Your task to perform on an android device: Check the price on the Dyson V11 Motorhead on Best Buy Image 0: 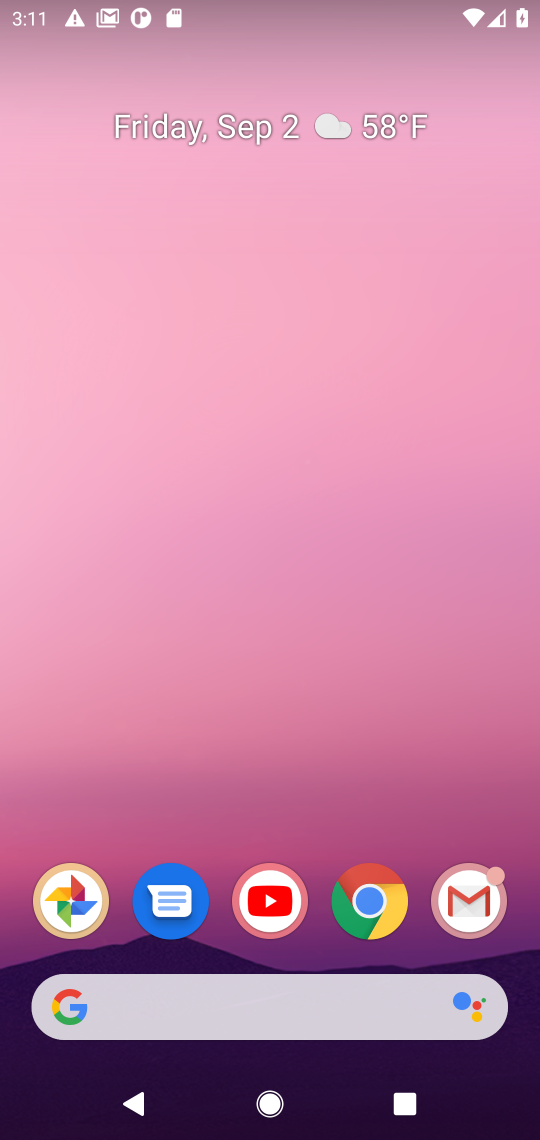
Step 0: drag from (393, 790) to (433, 20)
Your task to perform on an android device: Check the price on the Dyson V11 Motorhead on Best Buy Image 1: 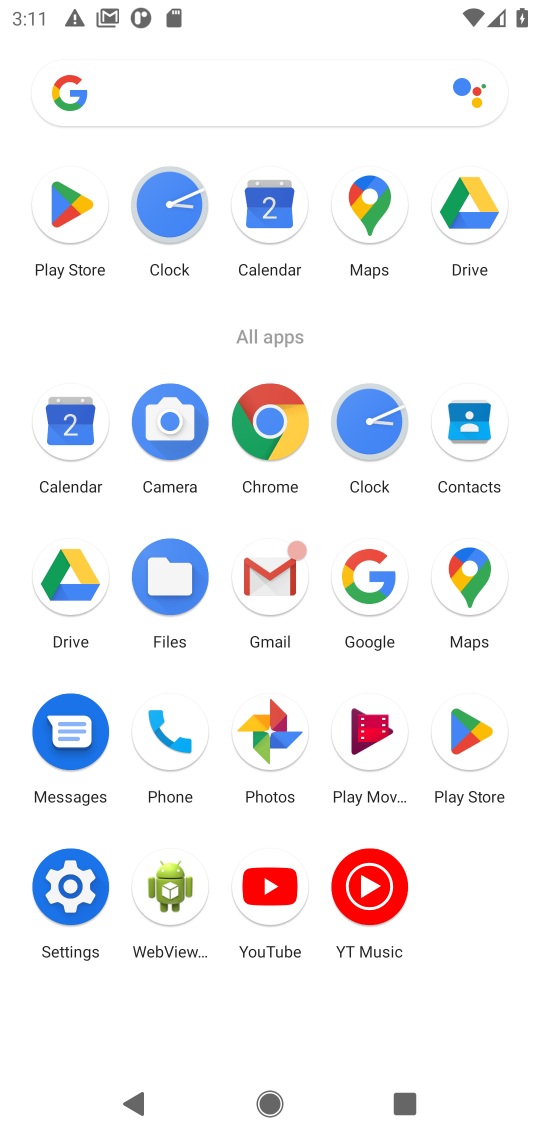
Step 1: click (276, 425)
Your task to perform on an android device: Check the price on the Dyson V11 Motorhead on Best Buy Image 2: 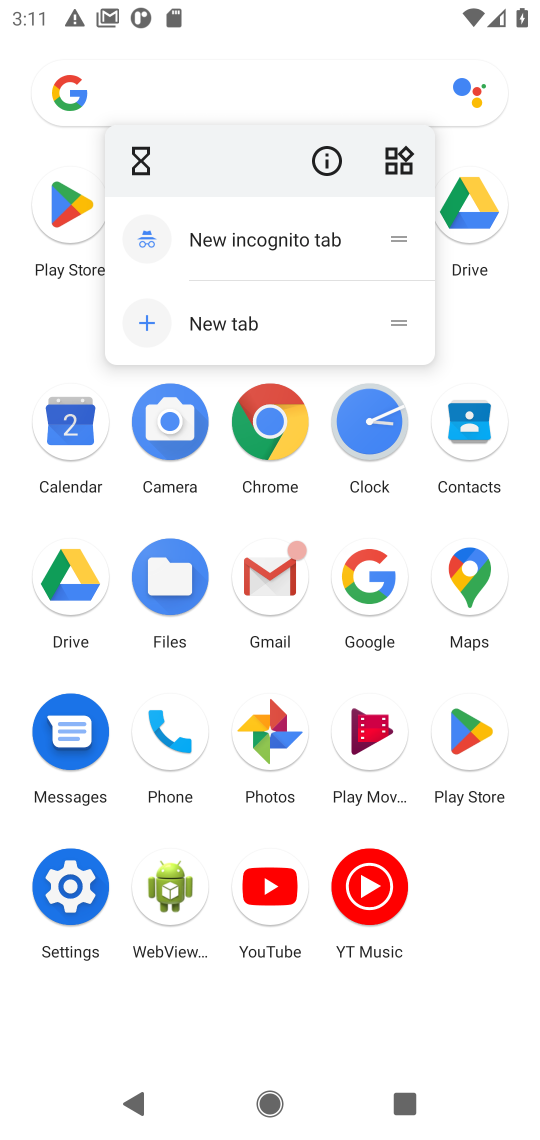
Step 2: click (276, 425)
Your task to perform on an android device: Check the price on the Dyson V11 Motorhead on Best Buy Image 3: 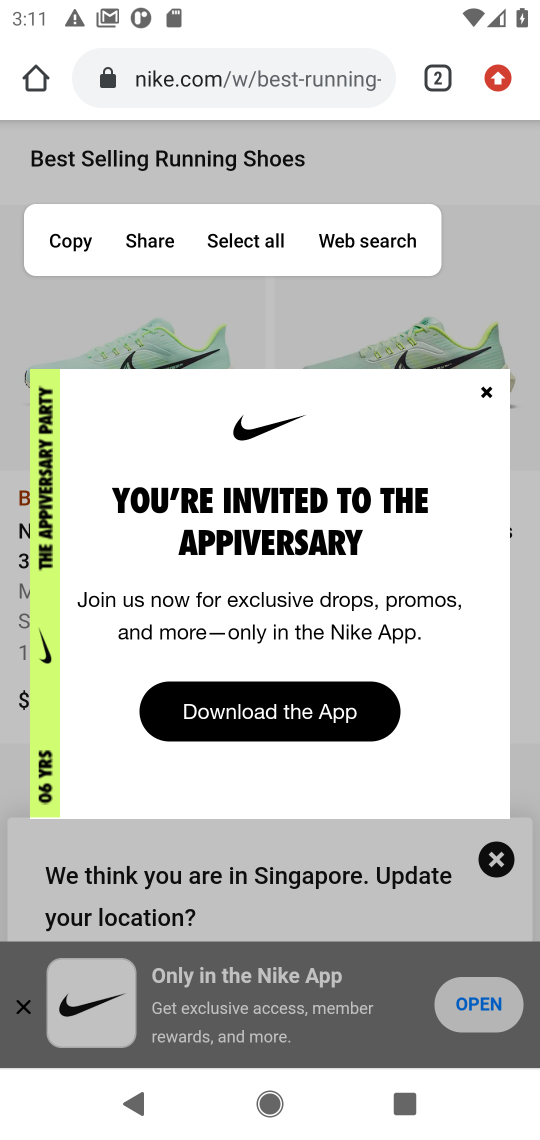
Step 3: click (298, 69)
Your task to perform on an android device: Check the price on the Dyson V11 Motorhead on Best Buy Image 4: 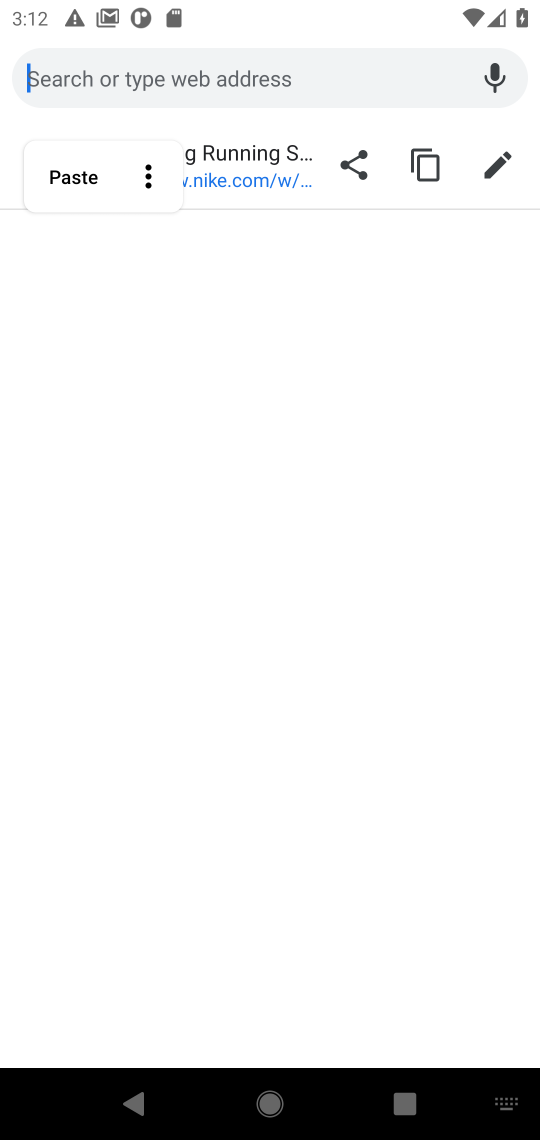
Step 4: type "Dyson V11 Motorhead best buy"
Your task to perform on an android device: Check the price on the Dyson V11 Motorhead on Best Buy Image 5: 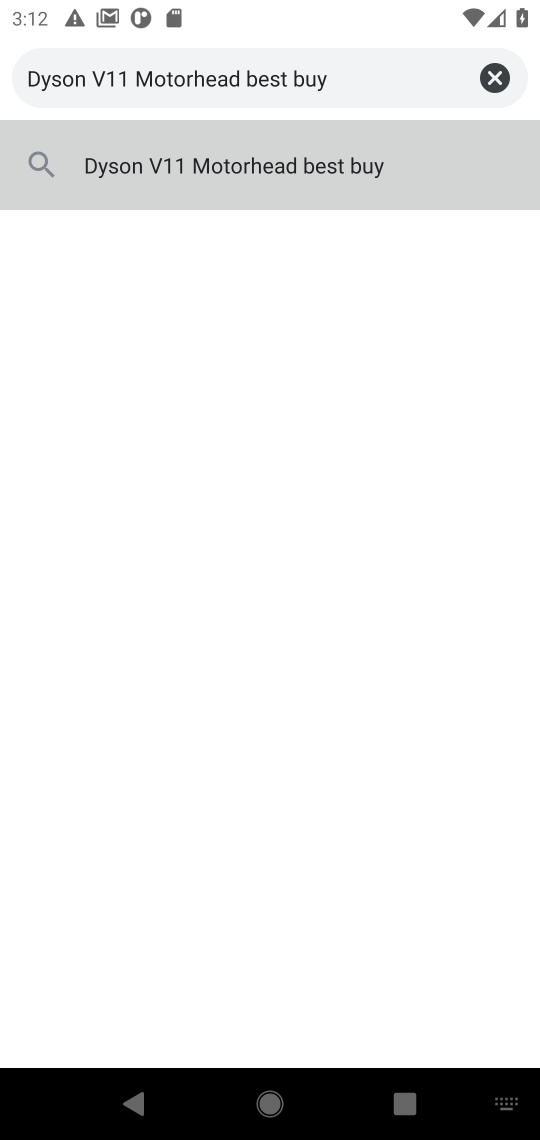
Step 5: press enter
Your task to perform on an android device: Check the price on the Dyson V11 Motorhead on Best Buy Image 6: 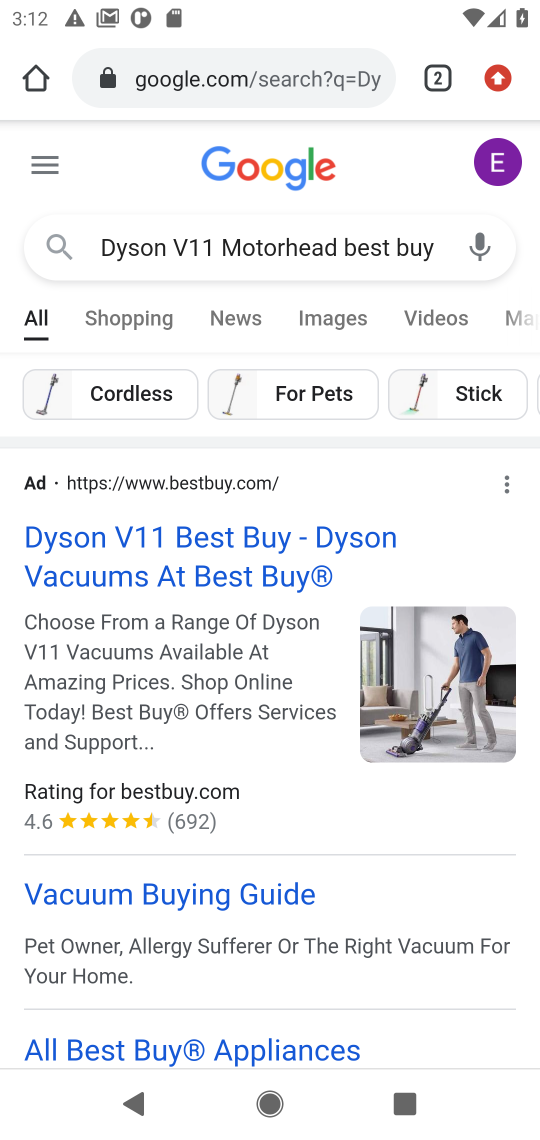
Step 6: drag from (351, 781) to (407, 53)
Your task to perform on an android device: Check the price on the Dyson V11 Motorhead on Best Buy Image 7: 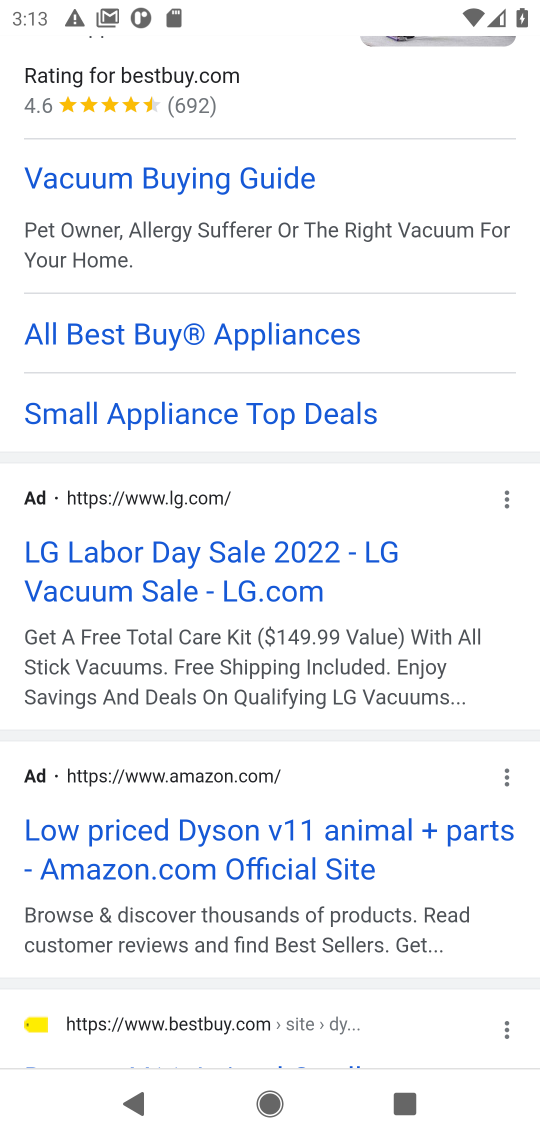
Step 7: drag from (254, 815) to (208, 395)
Your task to perform on an android device: Check the price on the Dyson V11 Motorhead on Best Buy Image 8: 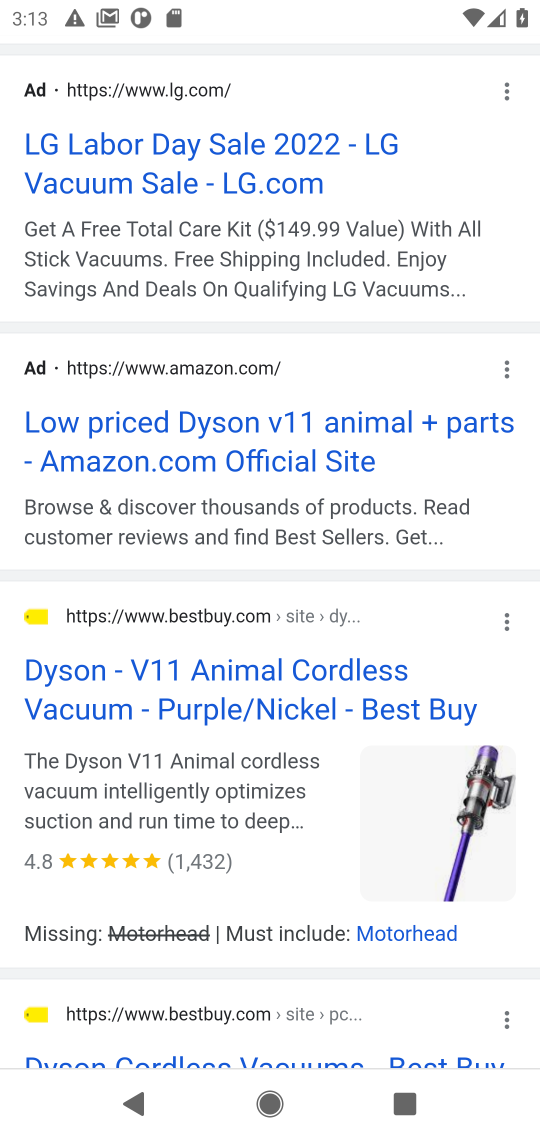
Step 8: click (359, 670)
Your task to perform on an android device: Check the price on the Dyson V11 Motorhead on Best Buy Image 9: 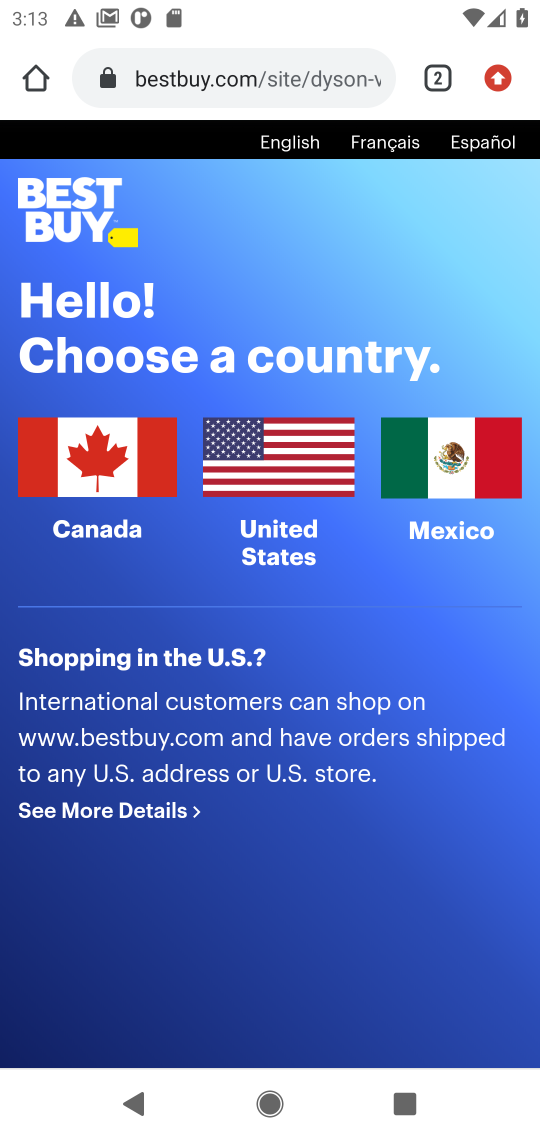
Step 9: click (258, 459)
Your task to perform on an android device: Check the price on the Dyson V11 Motorhead on Best Buy Image 10: 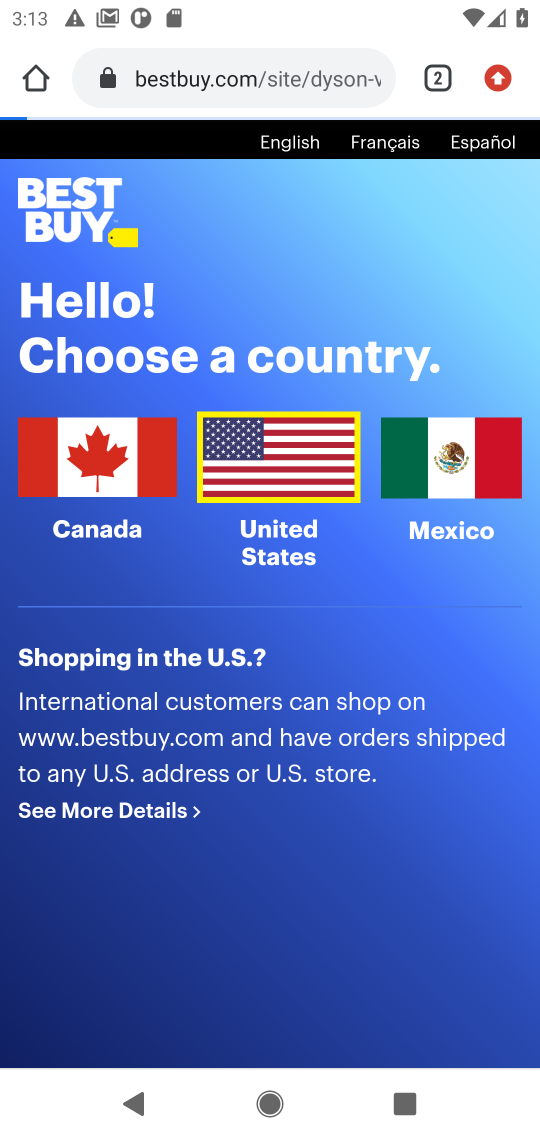
Step 10: click (296, 469)
Your task to perform on an android device: Check the price on the Dyson V11 Motorhead on Best Buy Image 11: 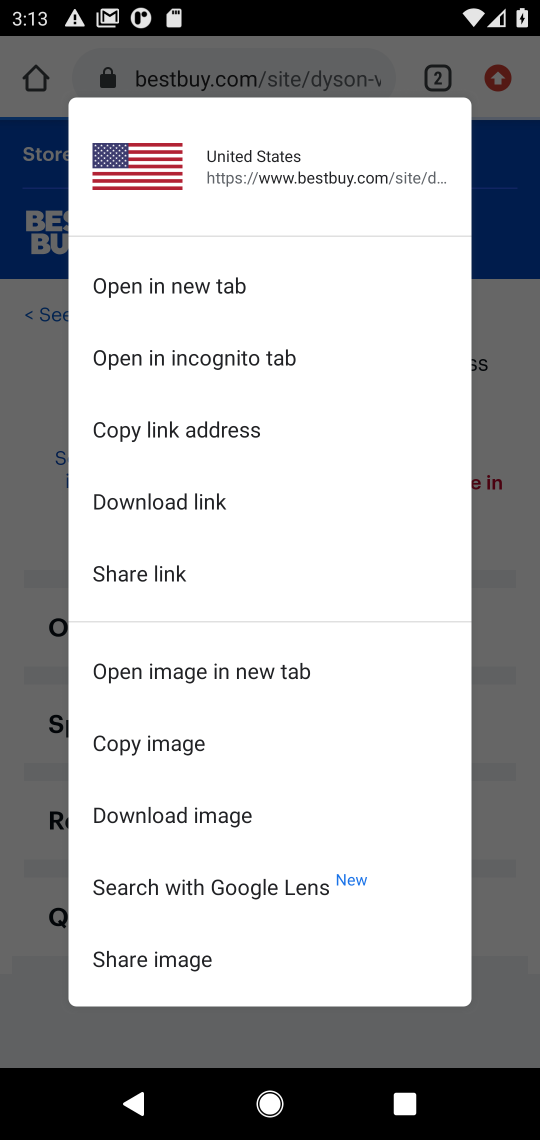
Step 11: click (40, 389)
Your task to perform on an android device: Check the price on the Dyson V11 Motorhead on Best Buy Image 12: 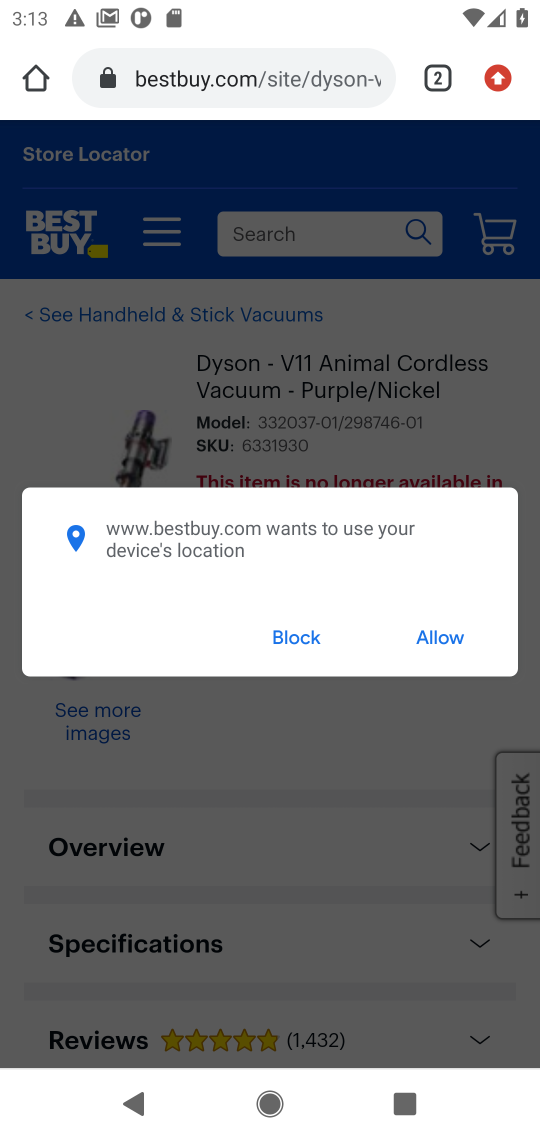
Step 12: click (304, 628)
Your task to perform on an android device: Check the price on the Dyson V11 Motorhead on Best Buy Image 13: 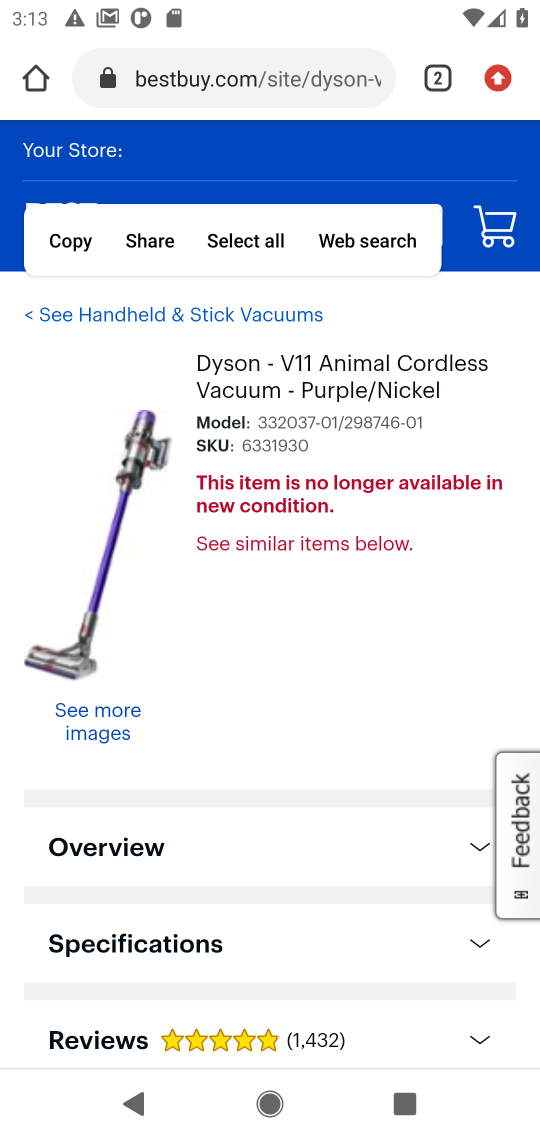
Step 13: drag from (256, 543) to (277, 426)
Your task to perform on an android device: Check the price on the Dyson V11 Motorhead on Best Buy Image 14: 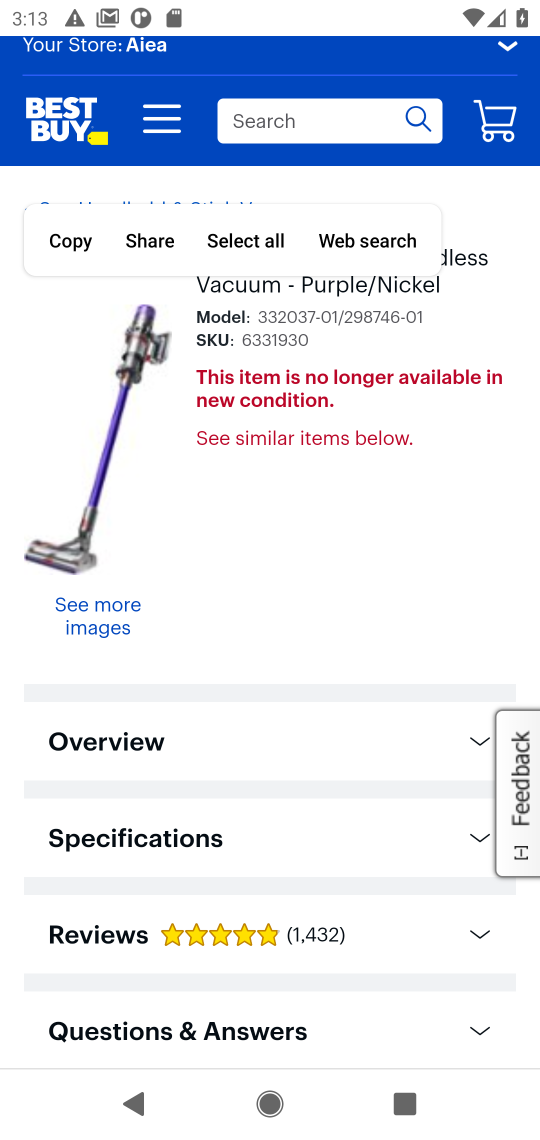
Step 14: press home button
Your task to perform on an android device: Check the price on the Dyson V11 Motorhead on Best Buy Image 15: 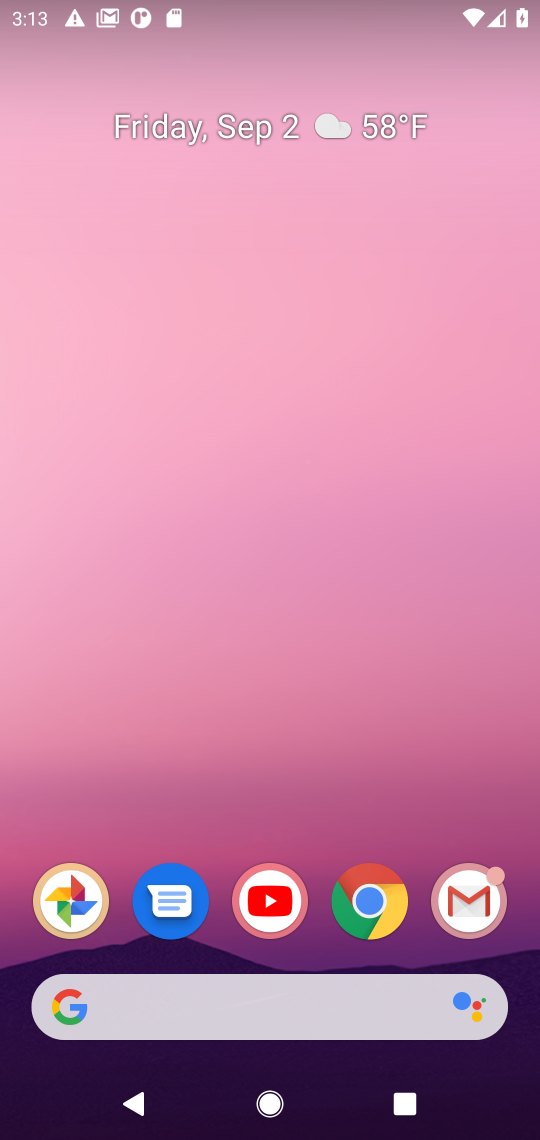
Step 15: drag from (310, 394) to (327, 125)
Your task to perform on an android device: Check the price on the Dyson V11 Motorhead on Best Buy Image 16: 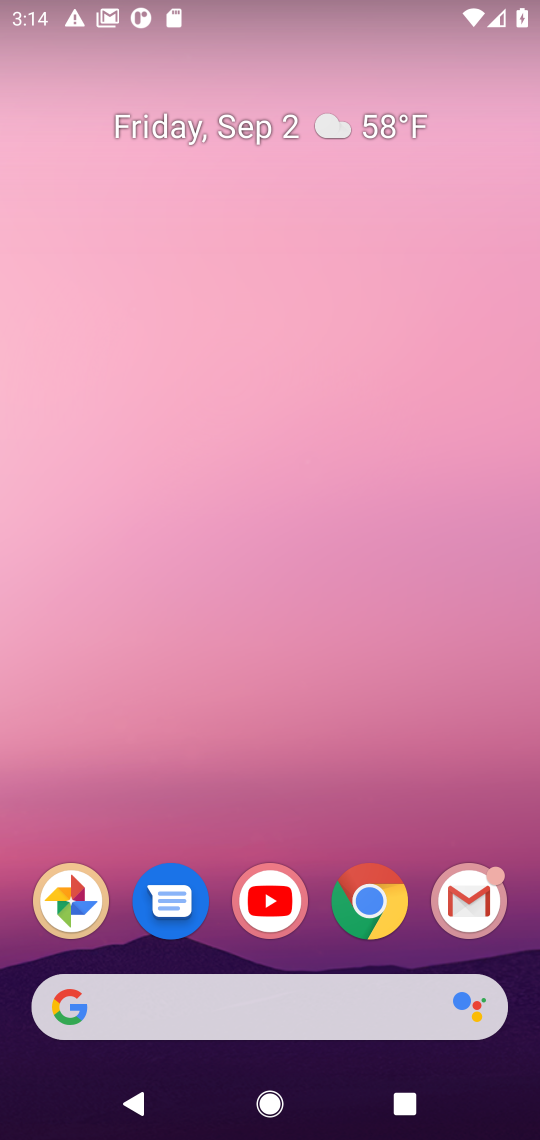
Step 16: drag from (361, 805) to (399, 106)
Your task to perform on an android device: Check the price on the Dyson V11 Motorhead on Best Buy Image 17: 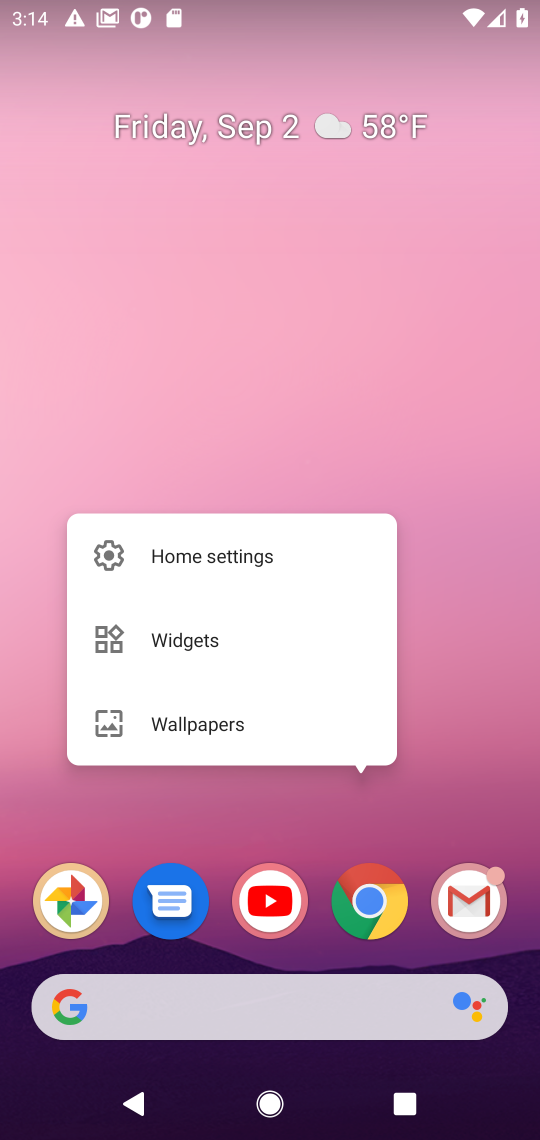
Step 17: click (467, 503)
Your task to perform on an android device: Check the price on the Dyson V11 Motorhead on Best Buy Image 18: 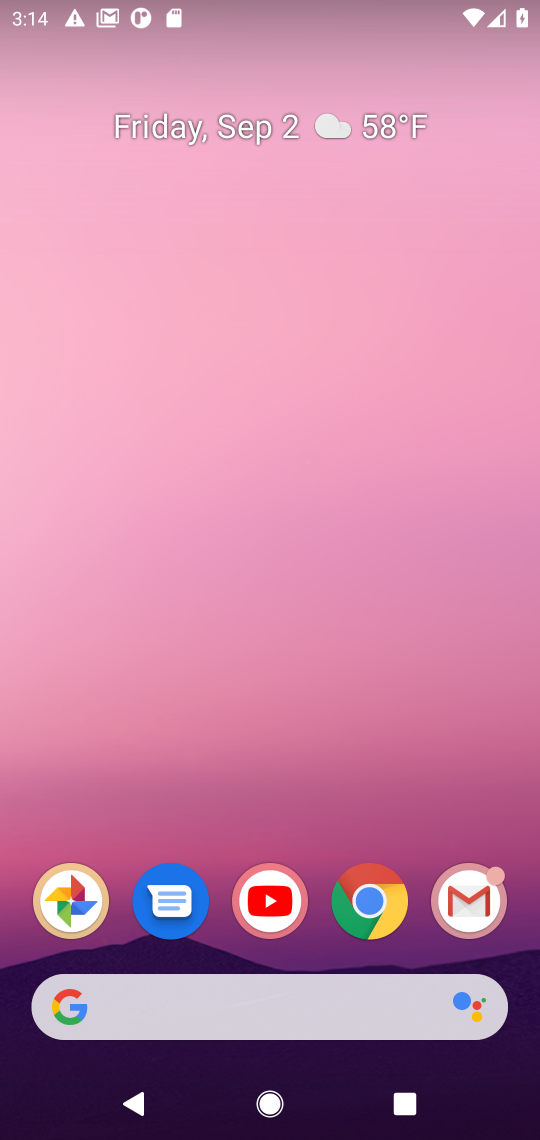
Step 18: drag from (332, 766) to (347, 128)
Your task to perform on an android device: Check the price on the Dyson V11 Motorhead on Best Buy Image 19: 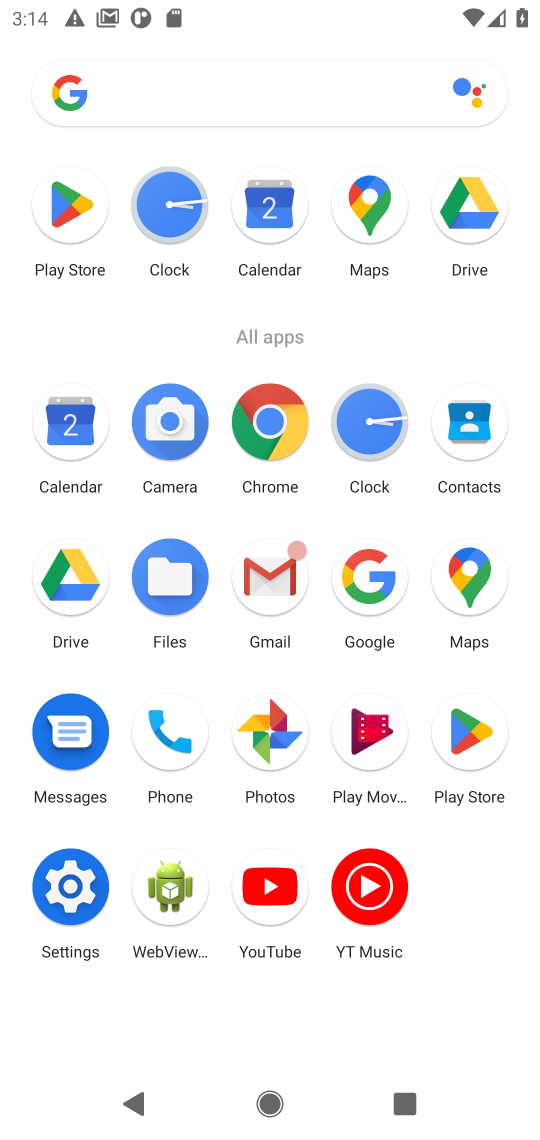
Step 19: click (279, 410)
Your task to perform on an android device: Check the price on the Dyson V11 Motorhead on Best Buy Image 20: 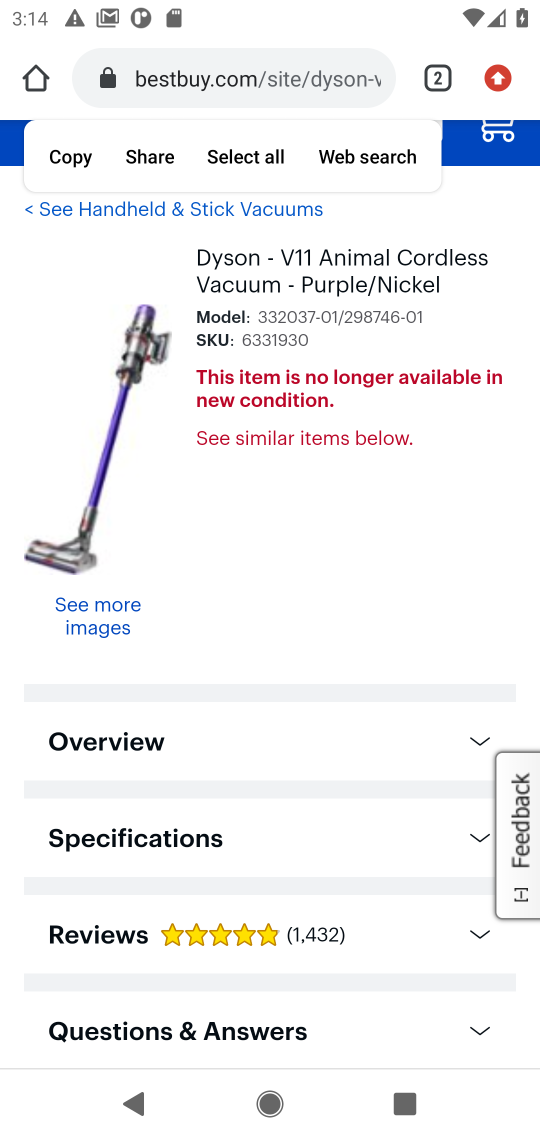
Step 20: task complete